Your task to perform on an android device: Check the weather Image 0: 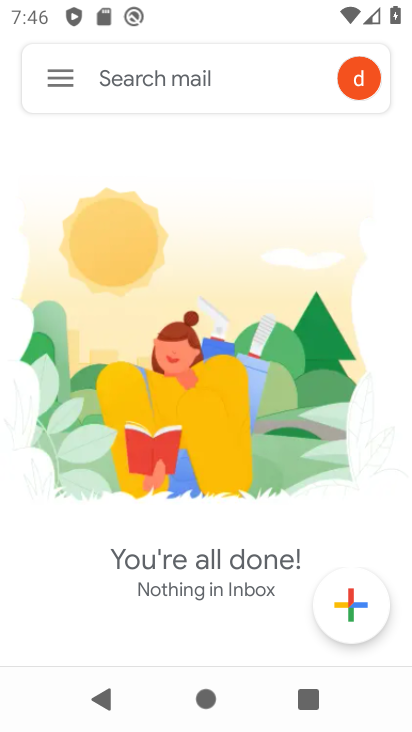
Step 0: press home button
Your task to perform on an android device: Check the weather Image 1: 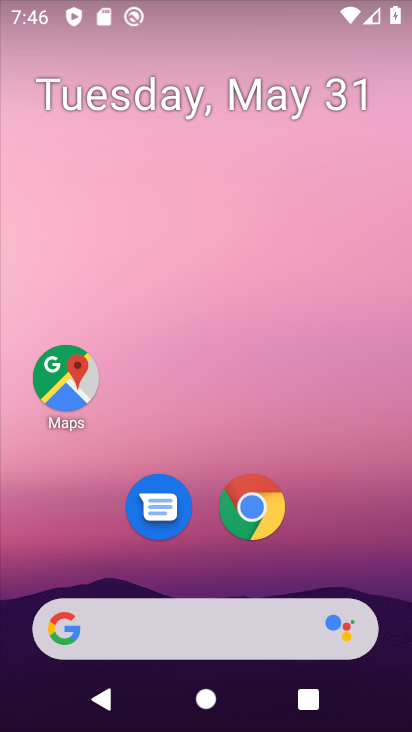
Step 1: click (126, 631)
Your task to perform on an android device: Check the weather Image 2: 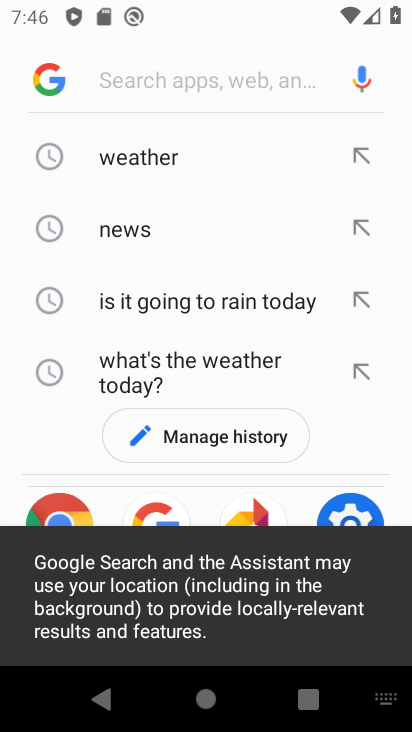
Step 2: click (117, 175)
Your task to perform on an android device: Check the weather Image 3: 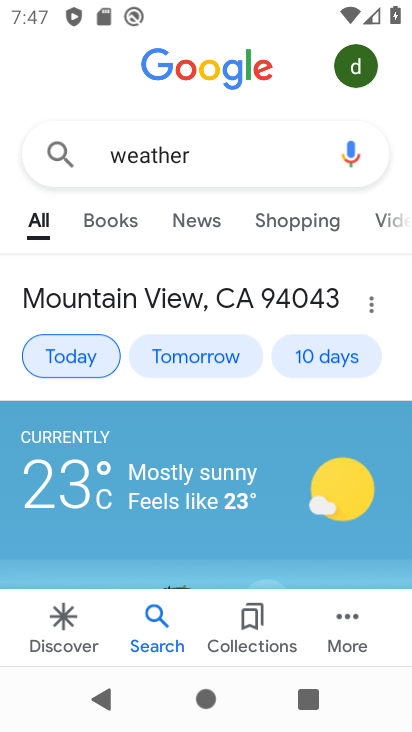
Step 3: task complete